Your task to perform on an android device: How much does the HisenseTV cost? Image 0: 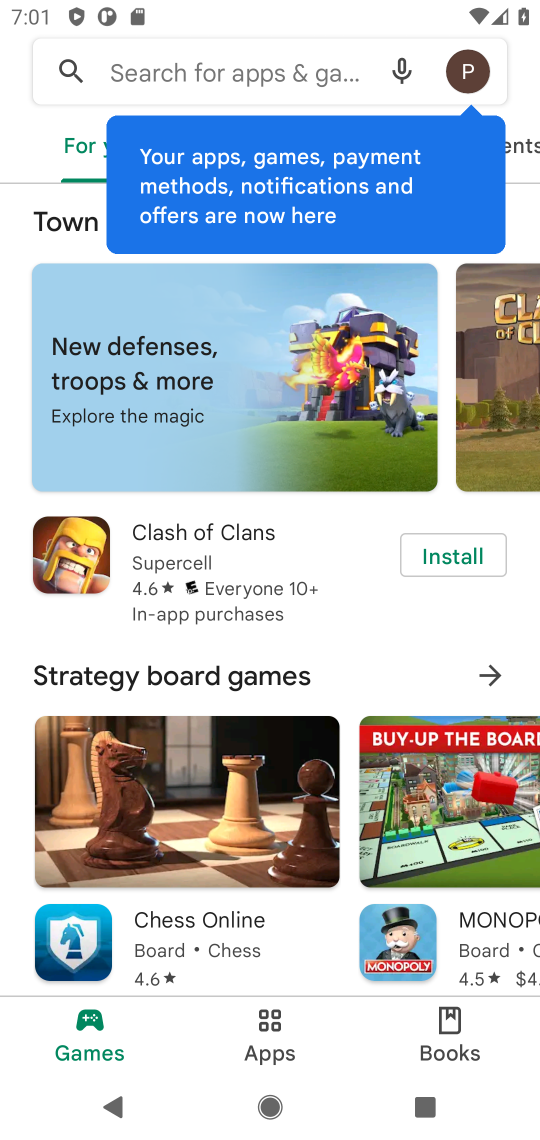
Step 0: press home button
Your task to perform on an android device: How much does the HisenseTV cost? Image 1: 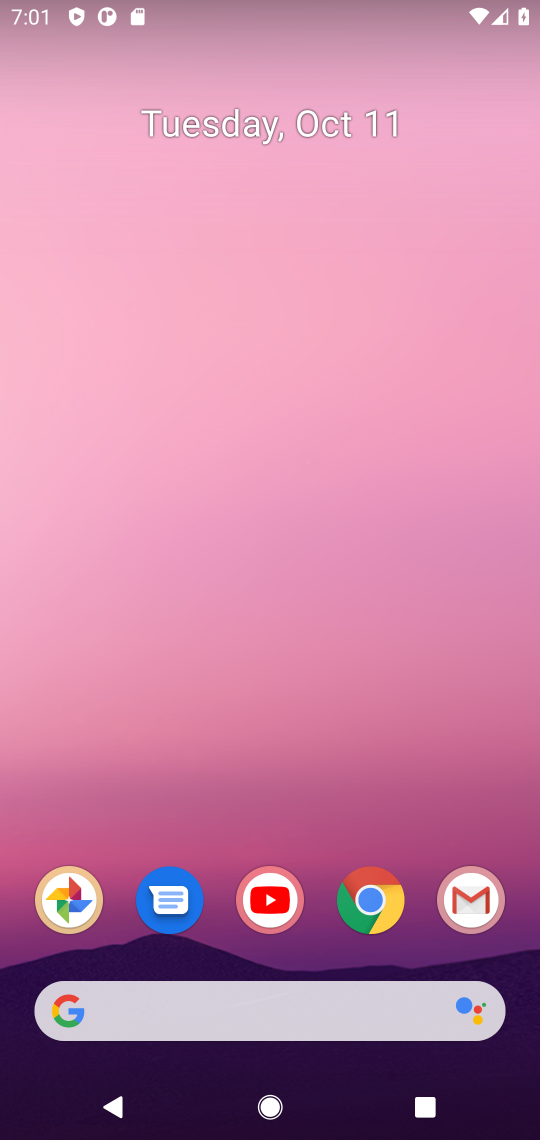
Step 1: click (374, 895)
Your task to perform on an android device: How much does the HisenseTV cost? Image 2: 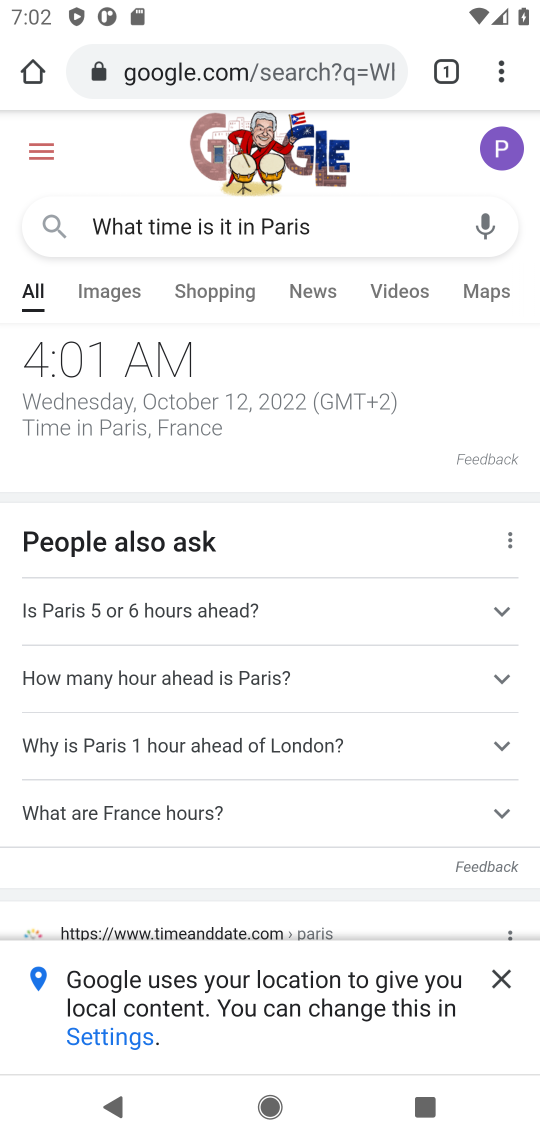
Step 2: press home button
Your task to perform on an android device: How much does the HisenseTV cost? Image 3: 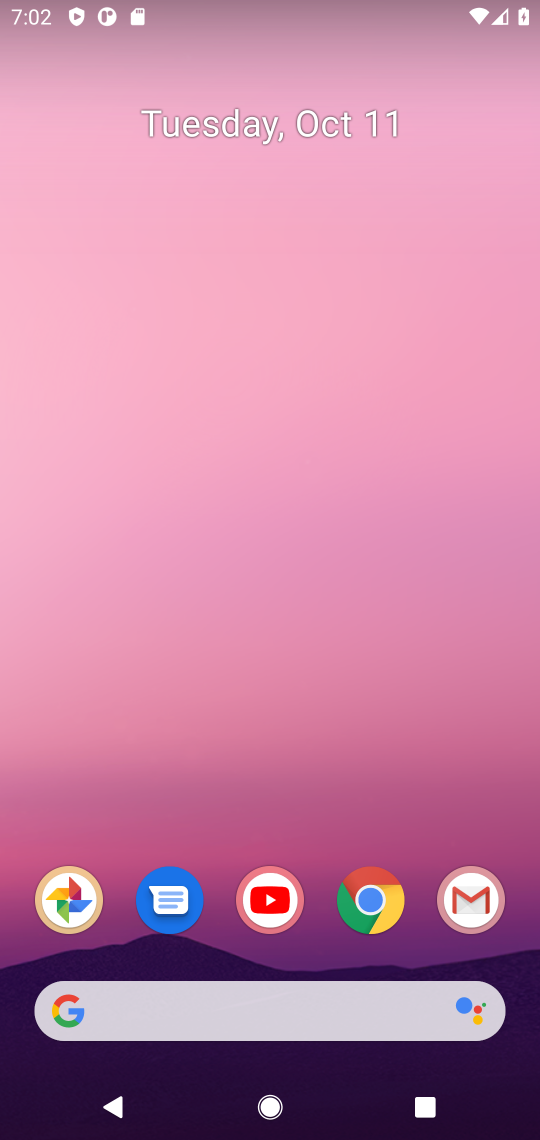
Step 3: click (378, 892)
Your task to perform on an android device: How much does the HisenseTV cost? Image 4: 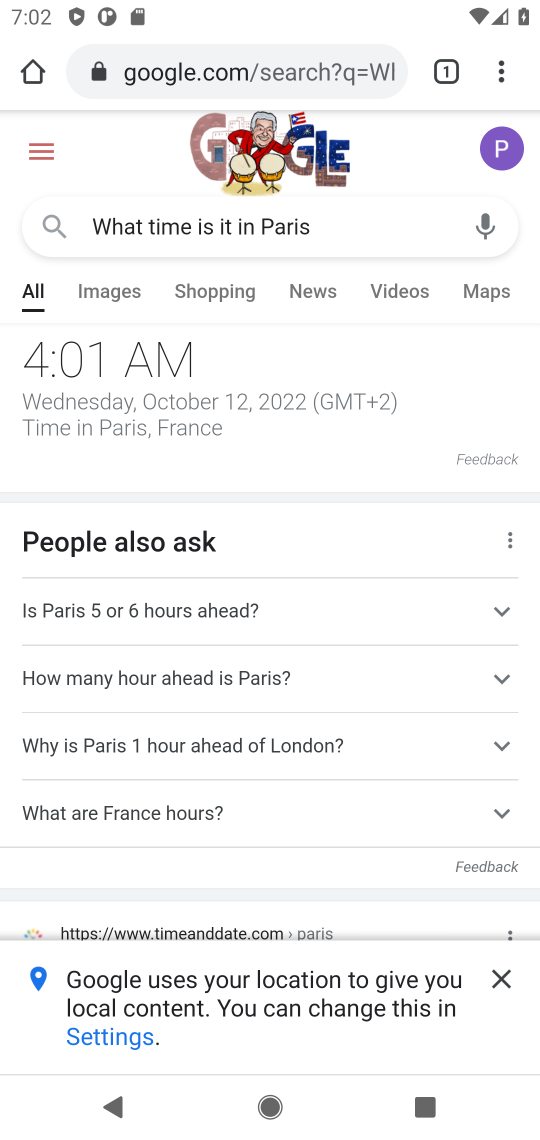
Step 4: click (260, 69)
Your task to perform on an android device: How much does the HisenseTV cost? Image 5: 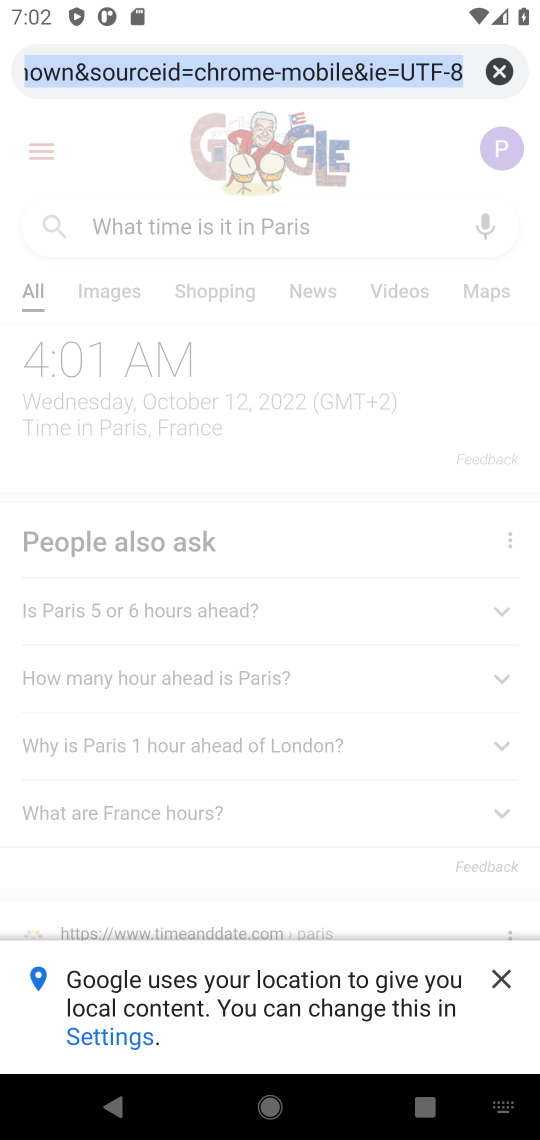
Step 5: type "How much does the HisenseTV cost?"
Your task to perform on an android device: How much does the HisenseTV cost? Image 6: 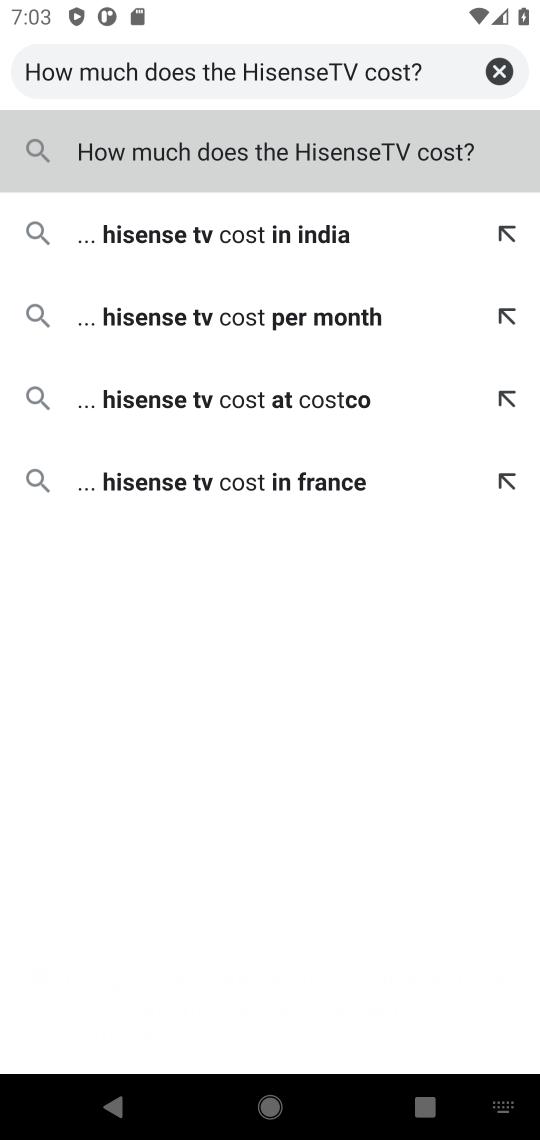
Step 6: click (418, 160)
Your task to perform on an android device: How much does the HisenseTV cost? Image 7: 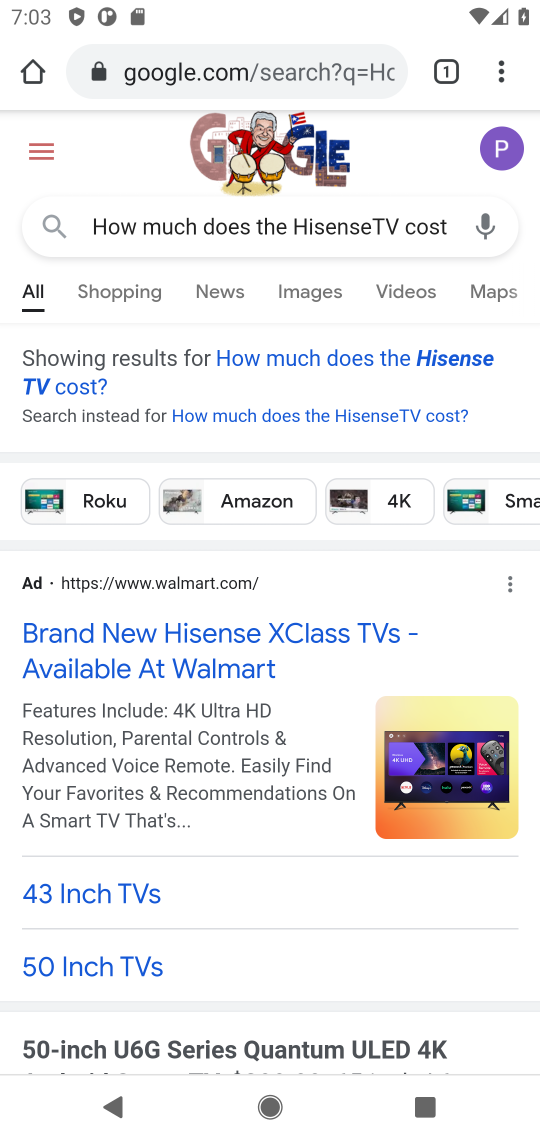
Step 7: task complete